Your task to perform on an android device: open wifi settings Image 0: 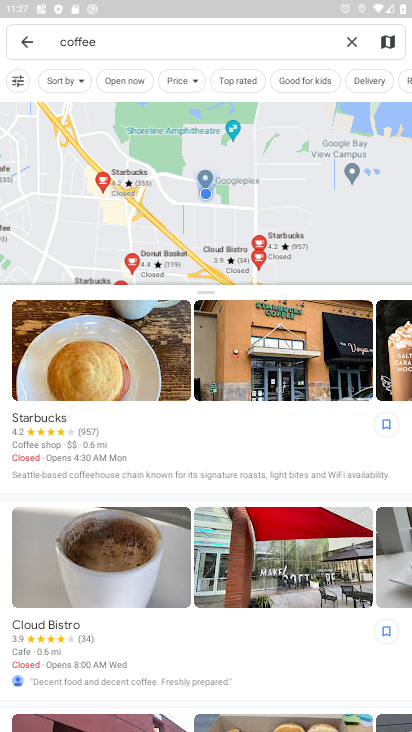
Step 0: press home button
Your task to perform on an android device: open wifi settings Image 1: 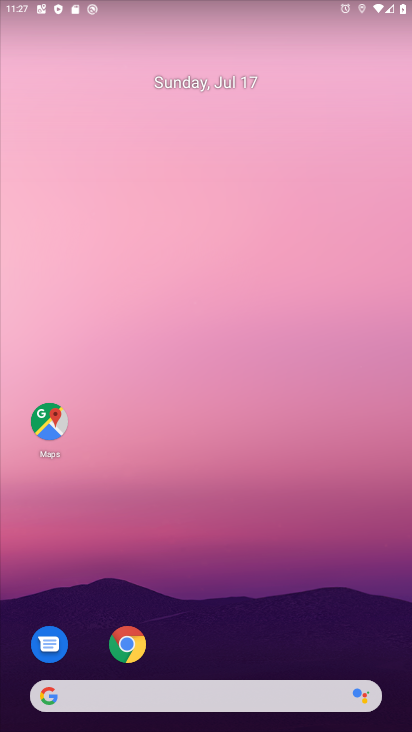
Step 1: drag from (270, 597) to (258, 158)
Your task to perform on an android device: open wifi settings Image 2: 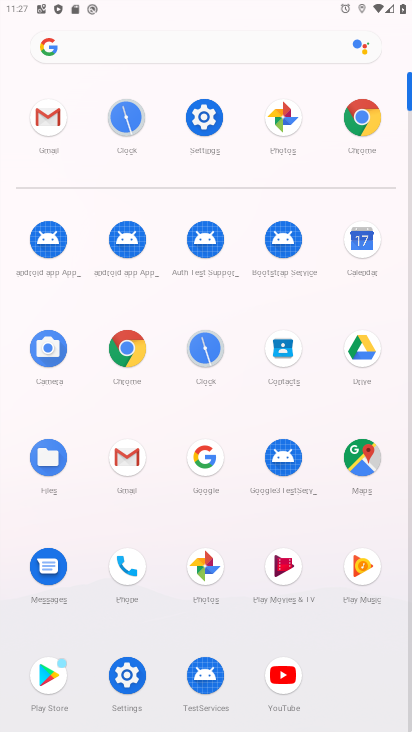
Step 2: click (210, 107)
Your task to perform on an android device: open wifi settings Image 3: 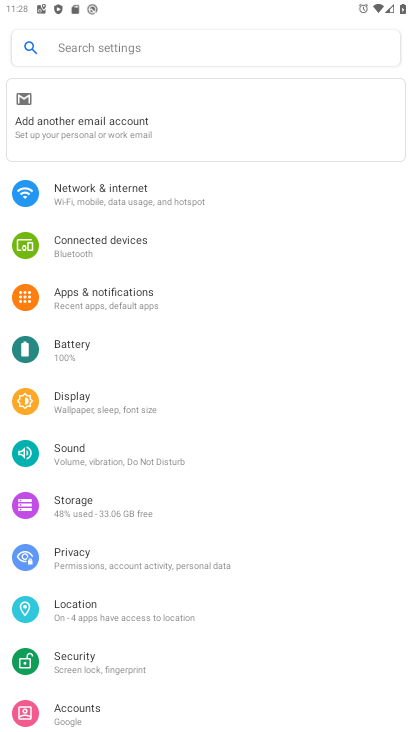
Step 3: click (116, 192)
Your task to perform on an android device: open wifi settings Image 4: 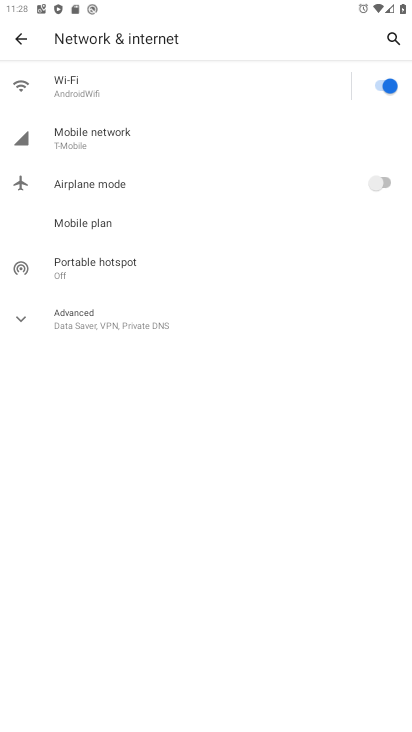
Step 4: click (180, 86)
Your task to perform on an android device: open wifi settings Image 5: 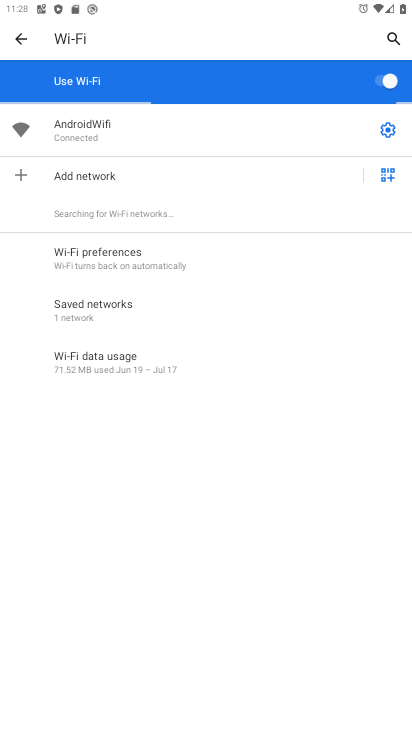
Step 5: task complete